Your task to perform on an android device: turn off wifi Image 0: 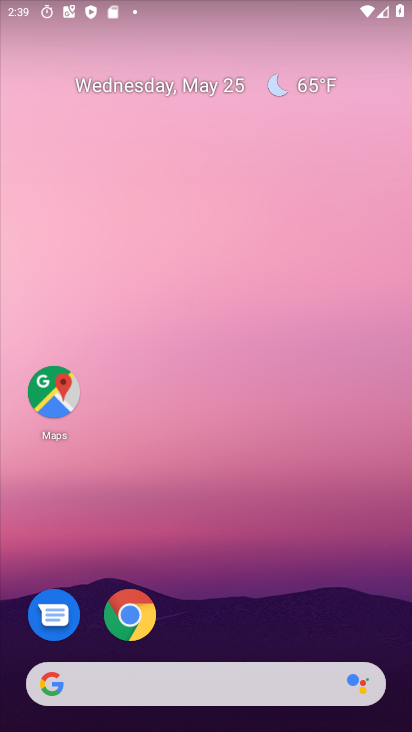
Step 0: drag from (396, 687) to (323, 183)
Your task to perform on an android device: turn off wifi Image 1: 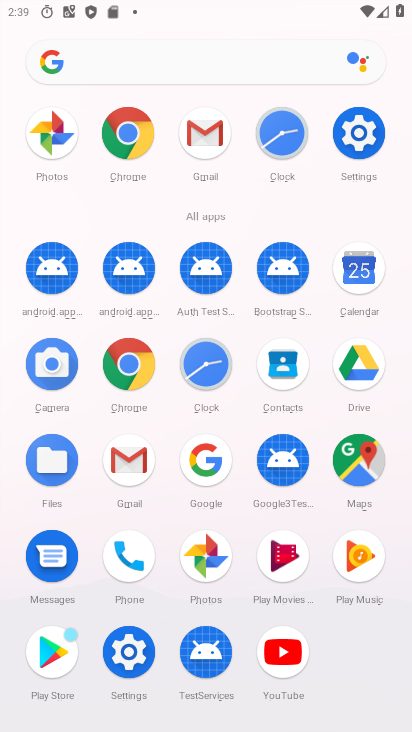
Step 1: click (350, 123)
Your task to perform on an android device: turn off wifi Image 2: 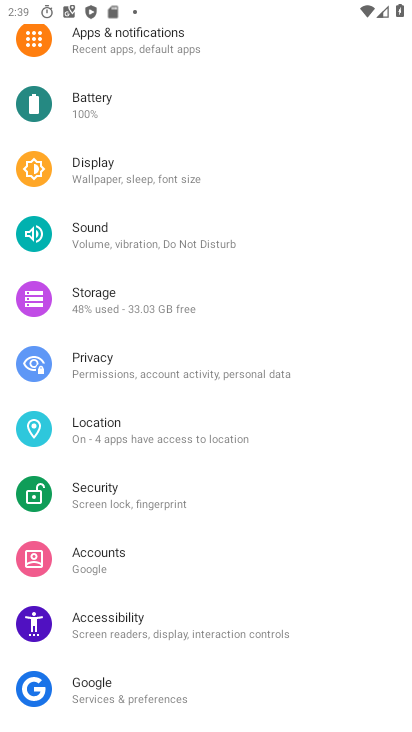
Step 2: drag from (257, 61) to (346, 566)
Your task to perform on an android device: turn off wifi Image 3: 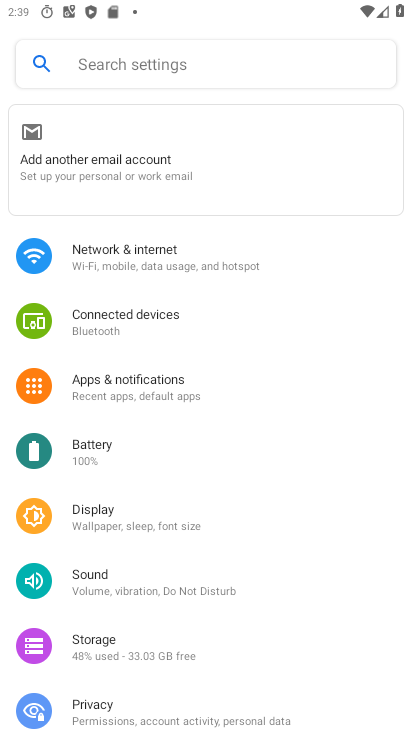
Step 3: click (146, 243)
Your task to perform on an android device: turn off wifi Image 4: 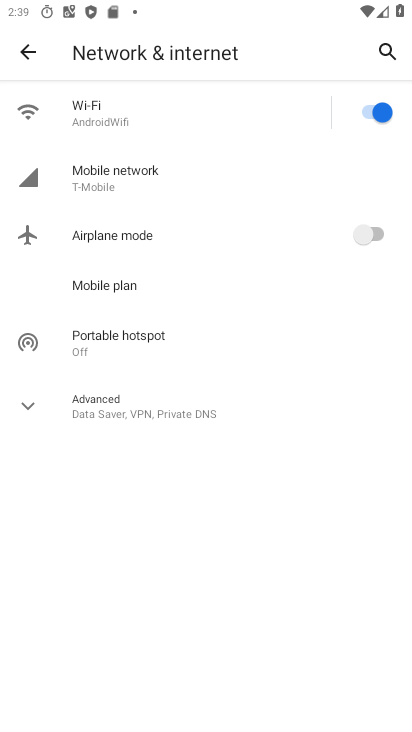
Step 4: click (362, 107)
Your task to perform on an android device: turn off wifi Image 5: 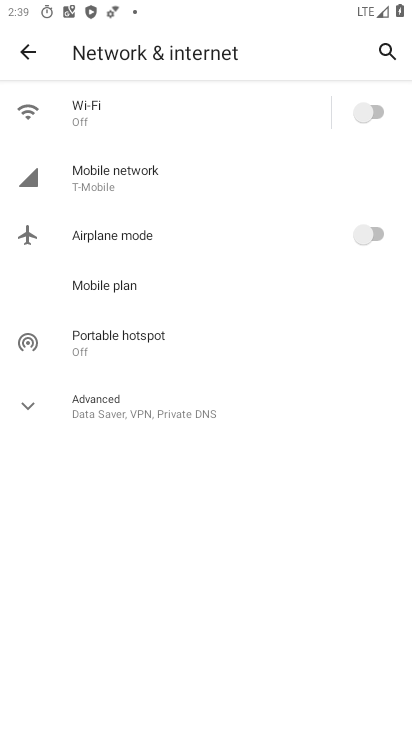
Step 5: task complete